Your task to perform on an android device: empty trash in google photos Image 0: 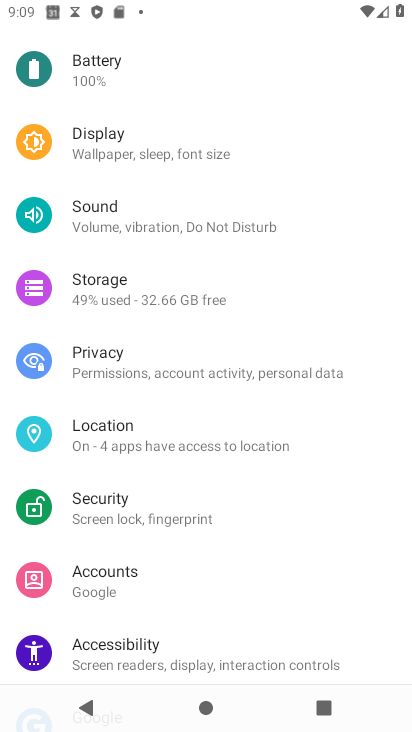
Step 0: press home button
Your task to perform on an android device: empty trash in google photos Image 1: 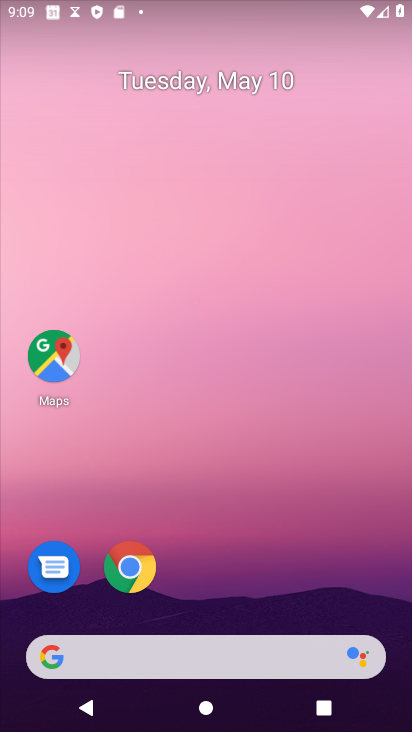
Step 1: drag from (16, 658) to (214, 344)
Your task to perform on an android device: empty trash in google photos Image 2: 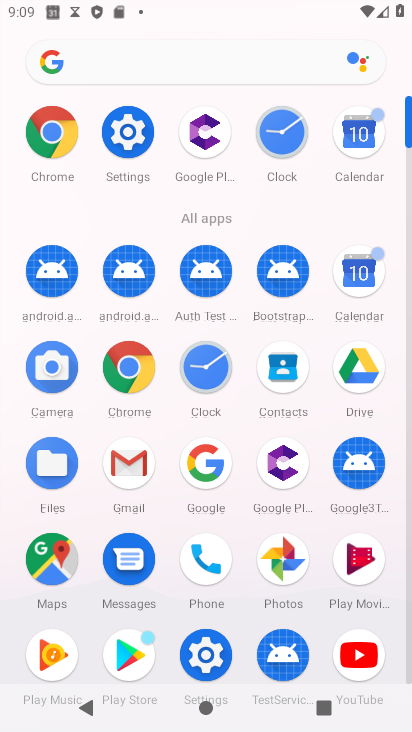
Step 2: click (298, 556)
Your task to perform on an android device: empty trash in google photos Image 3: 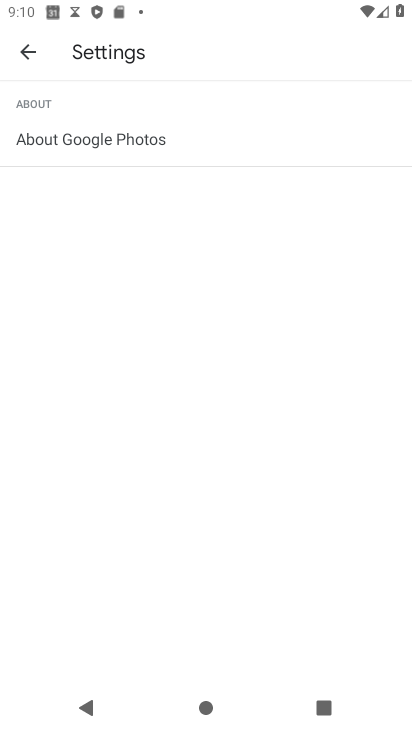
Step 3: press back button
Your task to perform on an android device: empty trash in google photos Image 4: 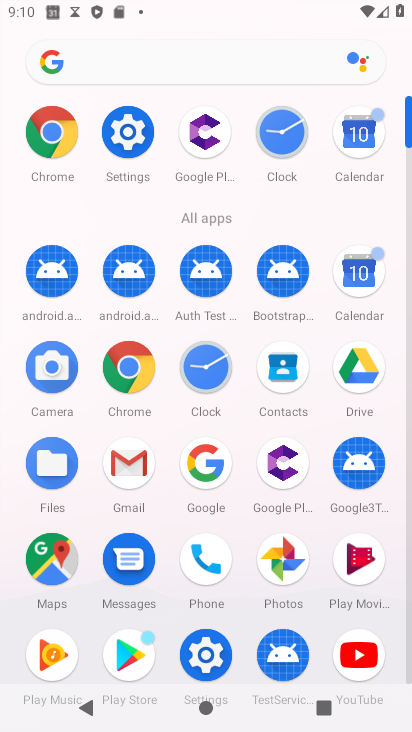
Step 4: click (282, 561)
Your task to perform on an android device: empty trash in google photos Image 5: 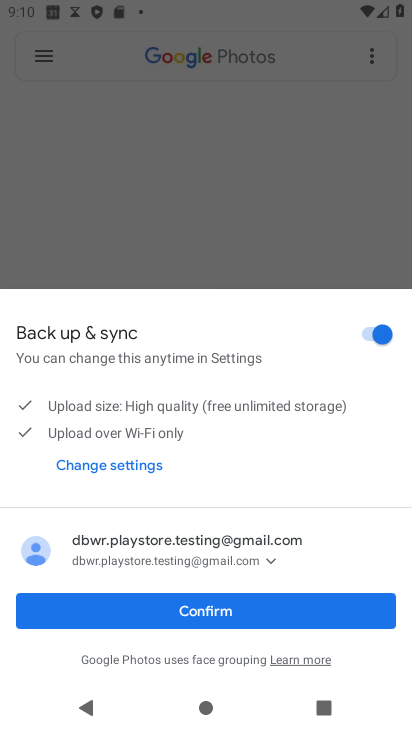
Step 5: click (166, 607)
Your task to perform on an android device: empty trash in google photos Image 6: 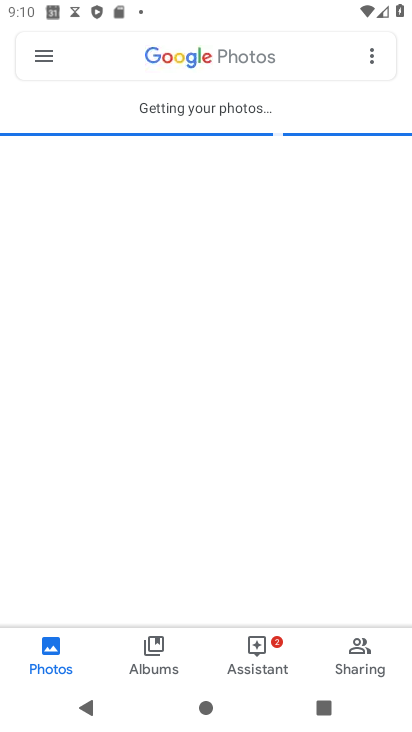
Step 6: click (44, 62)
Your task to perform on an android device: empty trash in google photos Image 7: 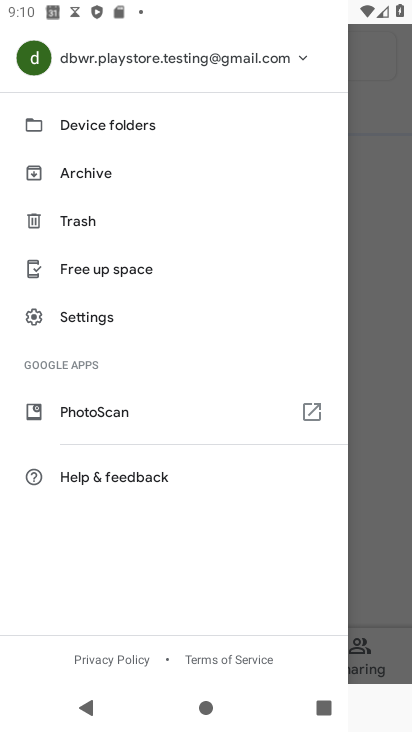
Step 7: click (116, 224)
Your task to perform on an android device: empty trash in google photos Image 8: 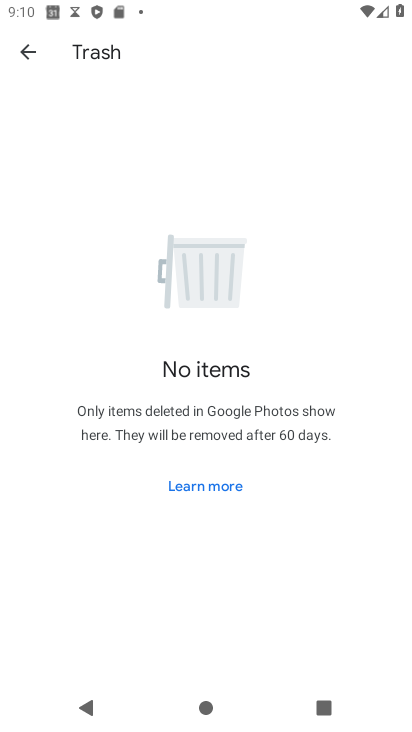
Step 8: task complete